Your task to perform on an android device: Go to notification settings Image 0: 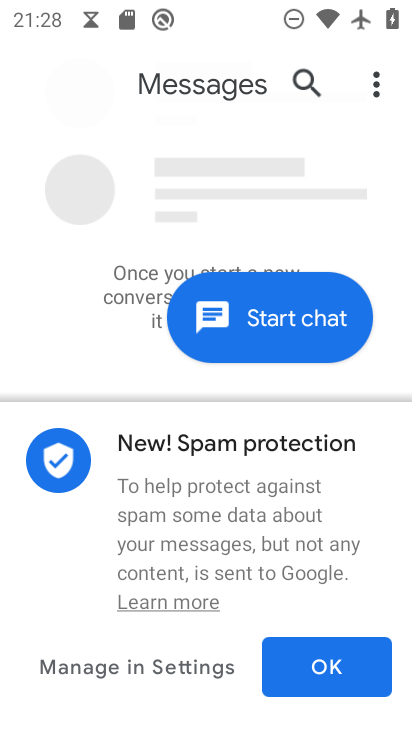
Step 0: press home button
Your task to perform on an android device: Go to notification settings Image 1: 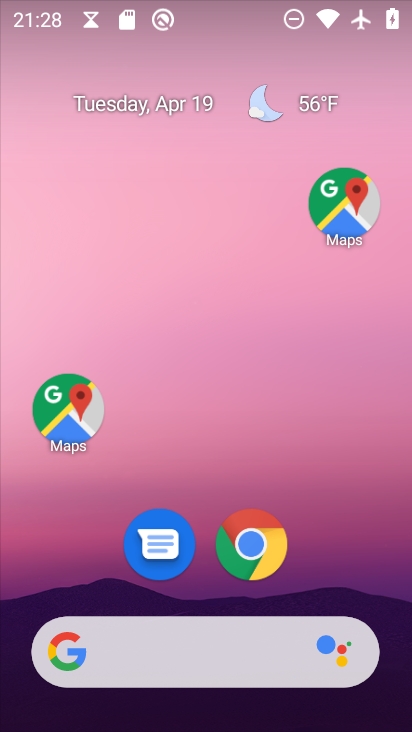
Step 1: drag from (129, 646) to (304, 101)
Your task to perform on an android device: Go to notification settings Image 2: 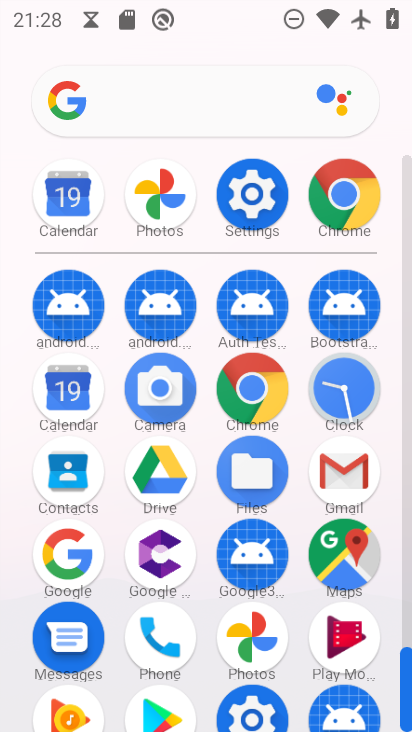
Step 2: click (249, 196)
Your task to perform on an android device: Go to notification settings Image 3: 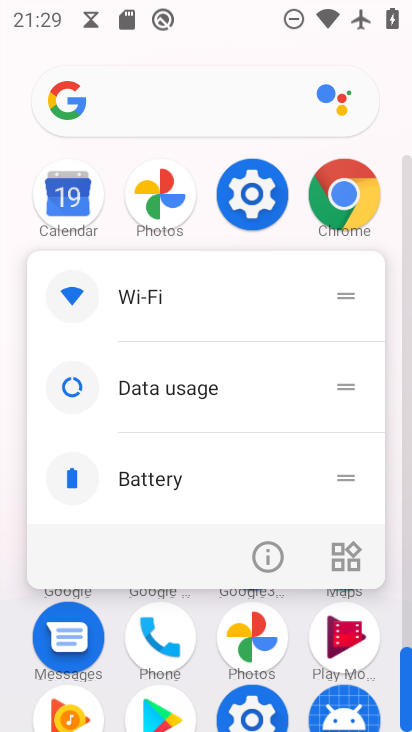
Step 3: click (255, 197)
Your task to perform on an android device: Go to notification settings Image 4: 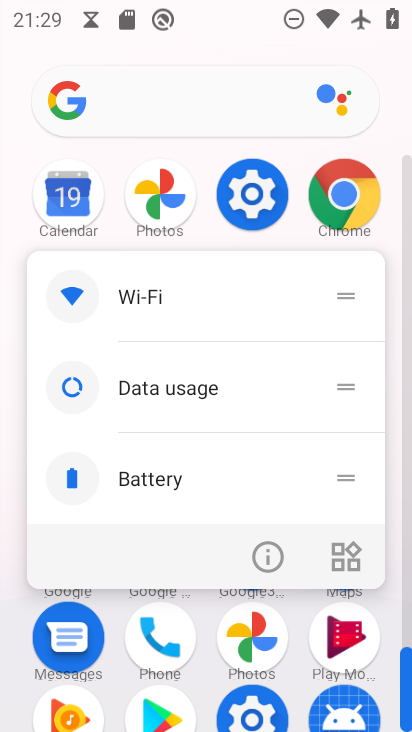
Step 4: click (255, 200)
Your task to perform on an android device: Go to notification settings Image 5: 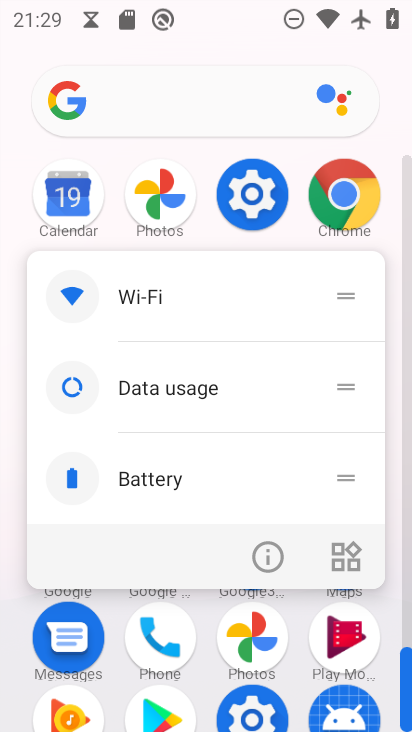
Step 5: click (259, 204)
Your task to perform on an android device: Go to notification settings Image 6: 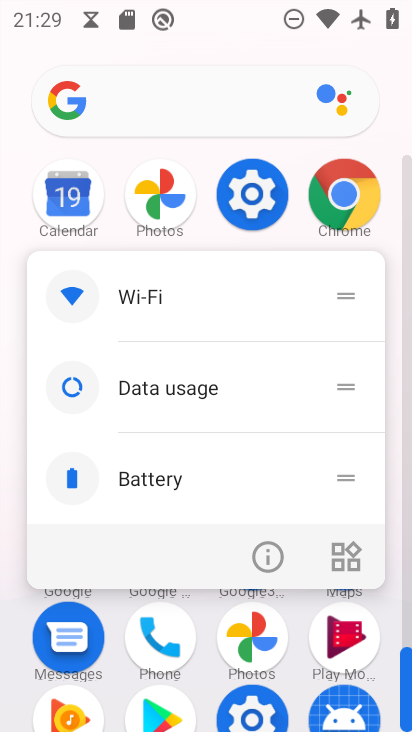
Step 6: click (251, 194)
Your task to perform on an android device: Go to notification settings Image 7: 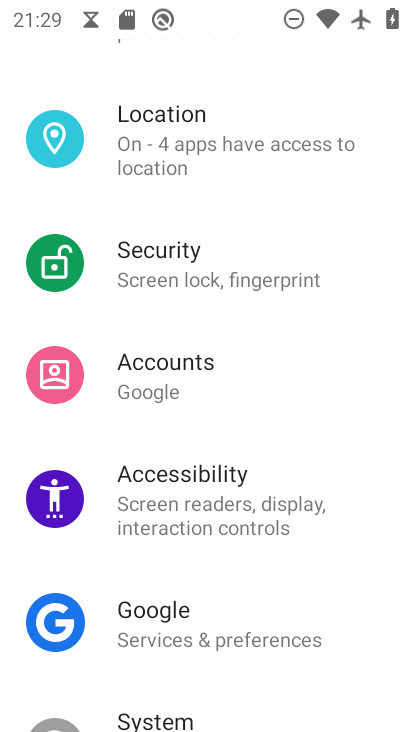
Step 7: drag from (260, 202) to (249, 603)
Your task to perform on an android device: Go to notification settings Image 8: 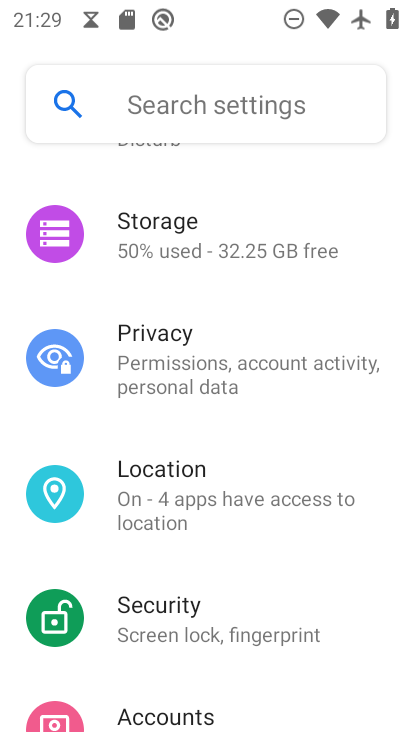
Step 8: drag from (284, 185) to (284, 598)
Your task to perform on an android device: Go to notification settings Image 9: 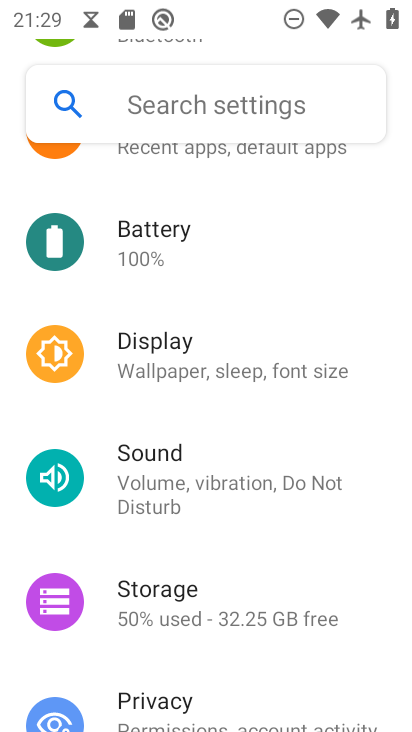
Step 9: drag from (282, 268) to (259, 557)
Your task to perform on an android device: Go to notification settings Image 10: 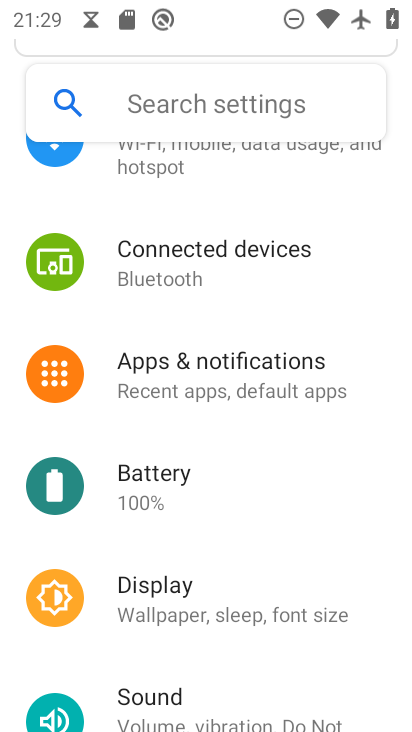
Step 10: click (235, 363)
Your task to perform on an android device: Go to notification settings Image 11: 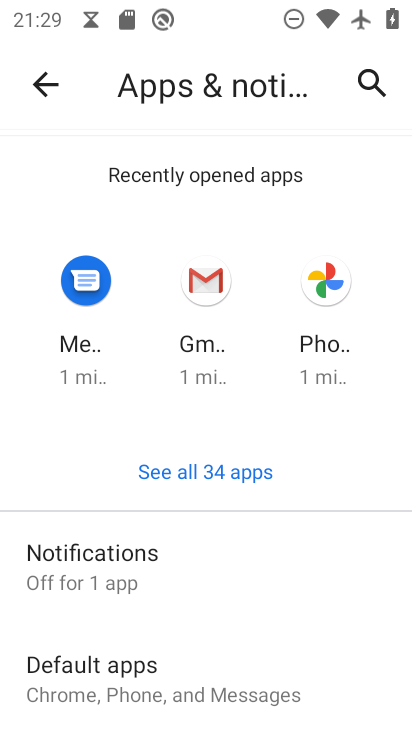
Step 11: click (126, 549)
Your task to perform on an android device: Go to notification settings Image 12: 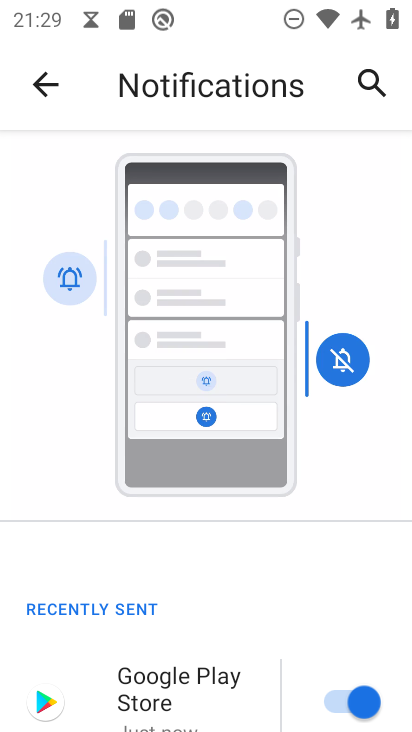
Step 12: task complete